Your task to perform on an android device: turn off airplane mode Image 0: 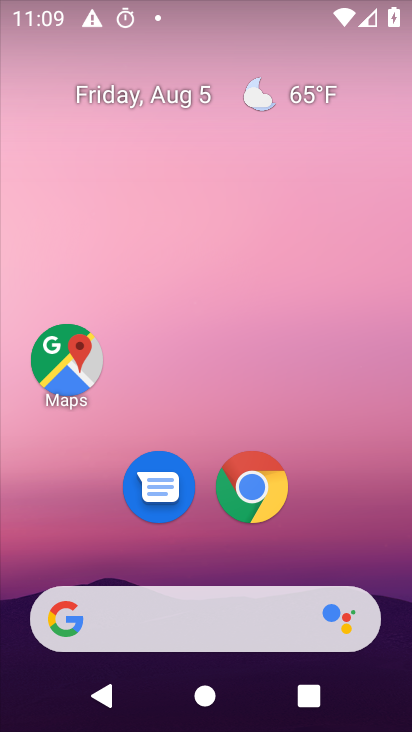
Step 0: drag from (367, 9) to (267, 524)
Your task to perform on an android device: turn off airplane mode Image 1: 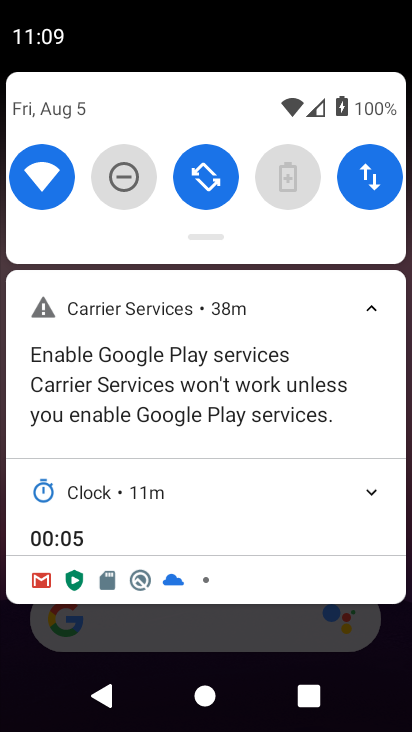
Step 1: task complete